Your task to perform on an android device: open a bookmark in the chrome app Image 0: 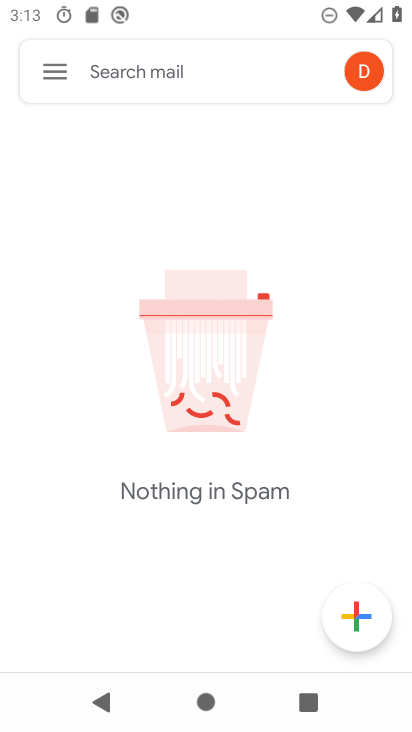
Step 0: press back button
Your task to perform on an android device: open a bookmark in the chrome app Image 1: 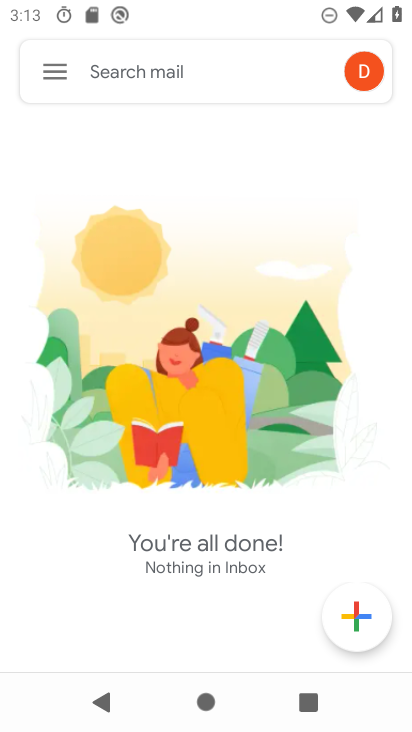
Step 1: press back button
Your task to perform on an android device: open a bookmark in the chrome app Image 2: 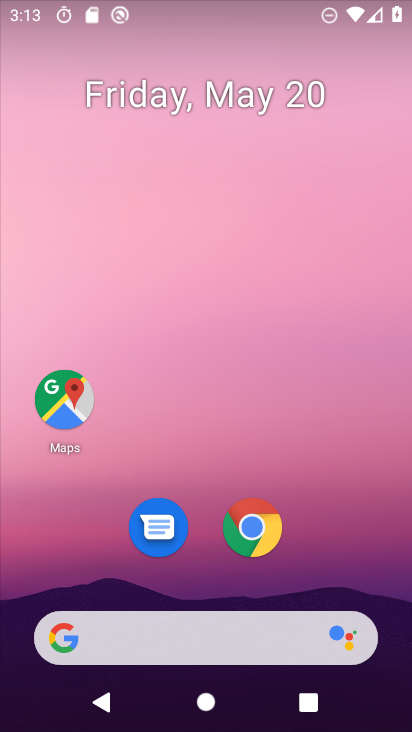
Step 2: click (249, 518)
Your task to perform on an android device: open a bookmark in the chrome app Image 3: 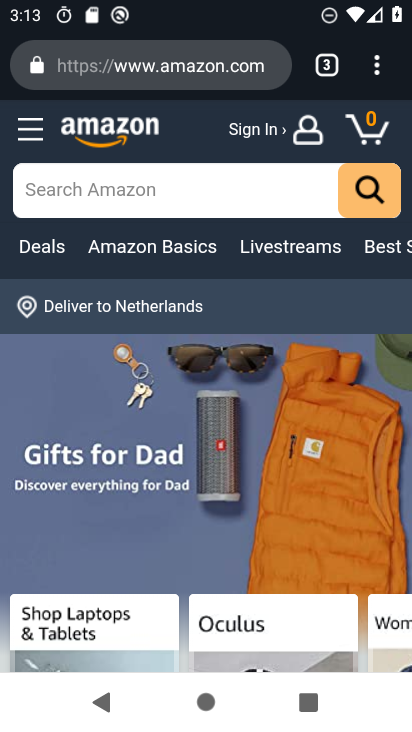
Step 3: click (387, 60)
Your task to perform on an android device: open a bookmark in the chrome app Image 4: 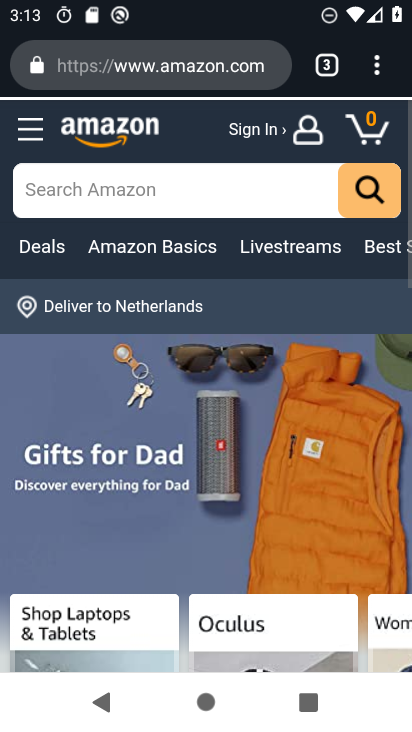
Step 4: drag from (371, 65) to (127, 259)
Your task to perform on an android device: open a bookmark in the chrome app Image 5: 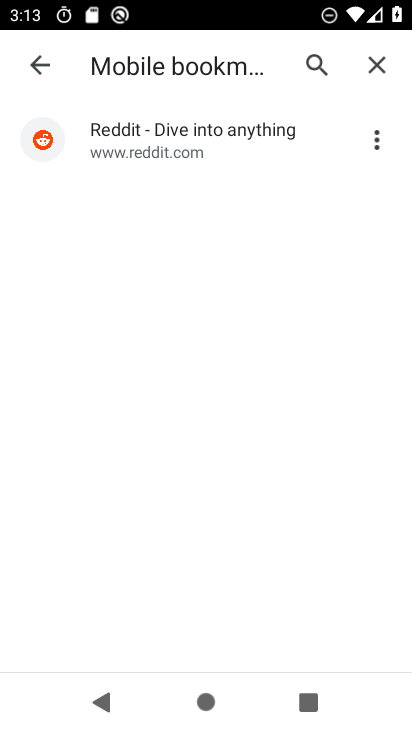
Step 5: click (133, 168)
Your task to perform on an android device: open a bookmark in the chrome app Image 6: 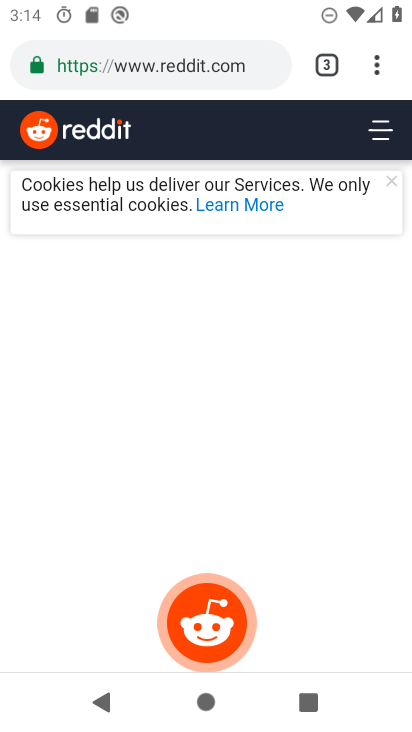
Step 6: task complete